Your task to perform on an android device: move an email to a new category in the gmail app Image 0: 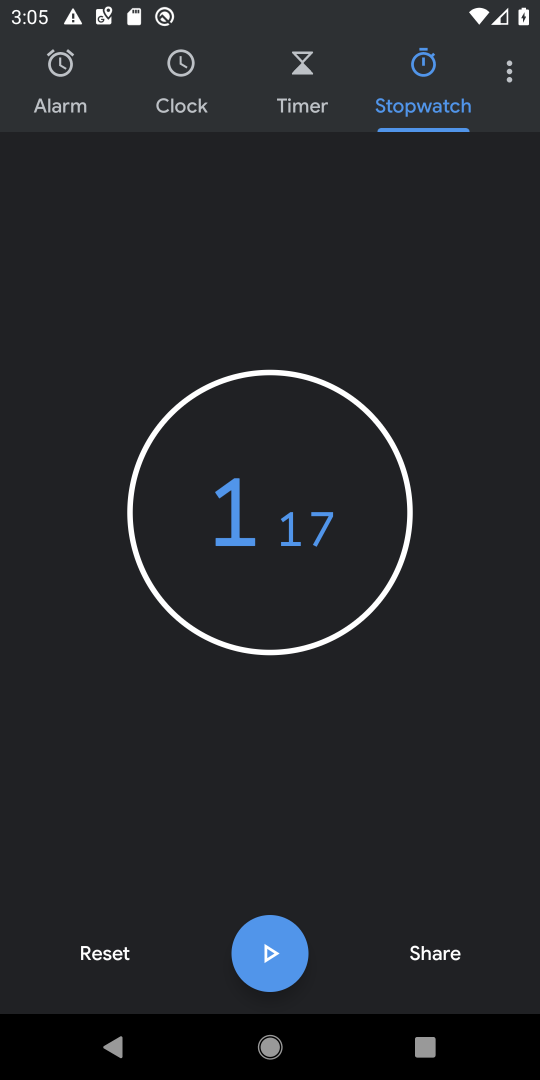
Step 0: press home button
Your task to perform on an android device: move an email to a new category in the gmail app Image 1: 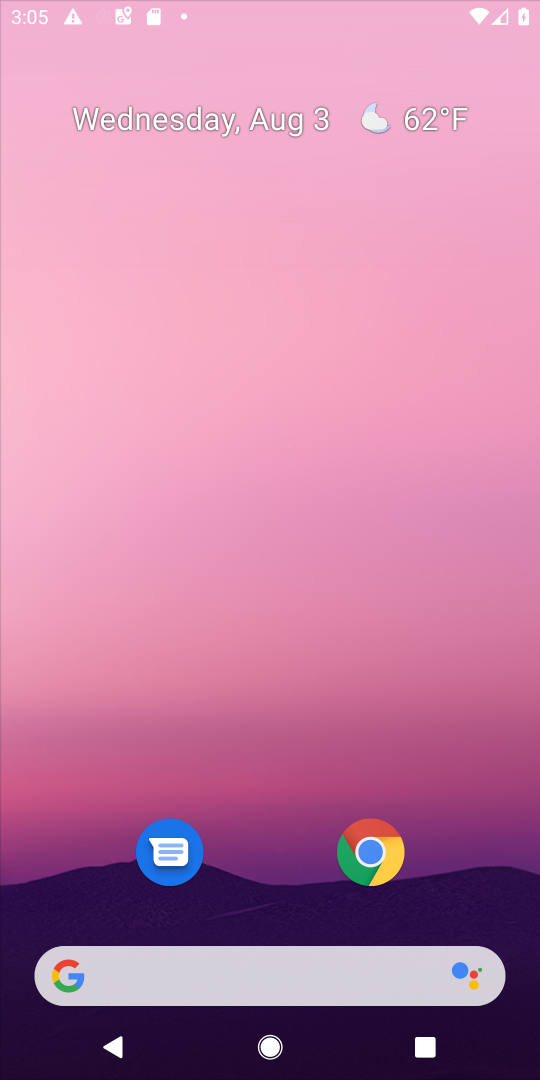
Step 1: drag from (490, 852) to (229, 24)
Your task to perform on an android device: move an email to a new category in the gmail app Image 2: 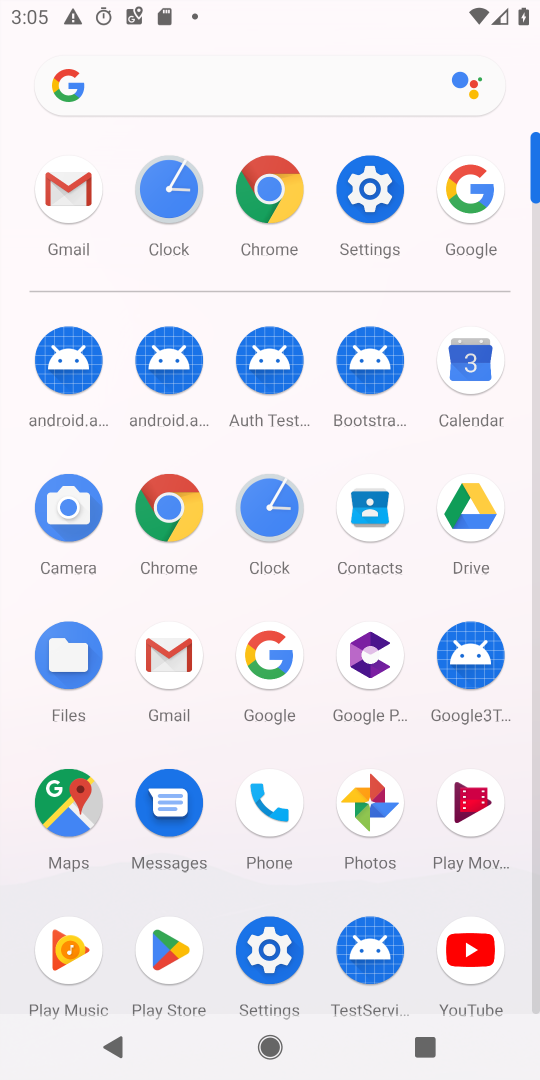
Step 2: click (170, 671)
Your task to perform on an android device: move an email to a new category in the gmail app Image 3: 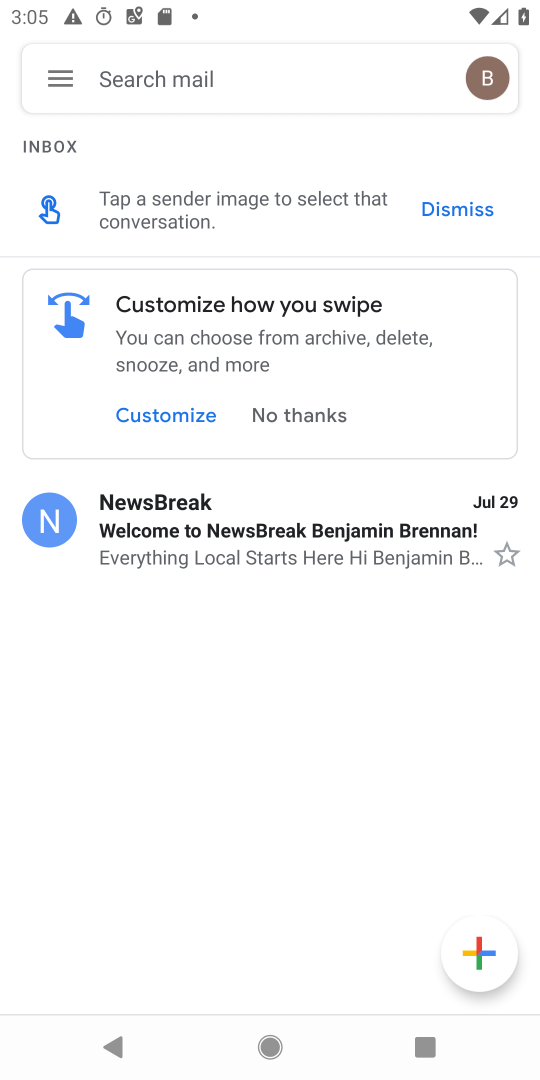
Step 3: task complete